Your task to perform on an android device: turn on location history Image 0: 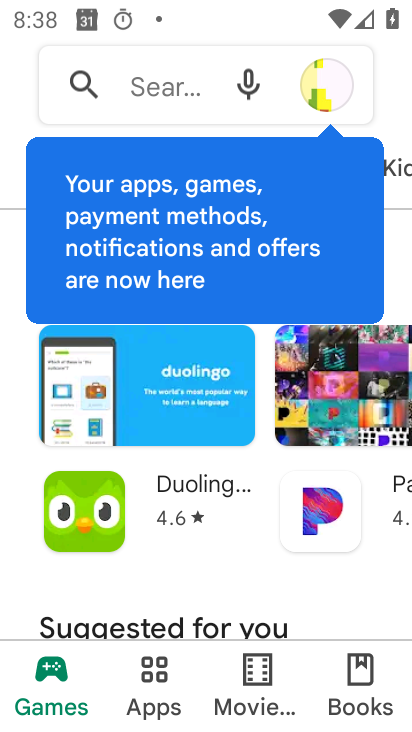
Step 0: press home button
Your task to perform on an android device: turn on location history Image 1: 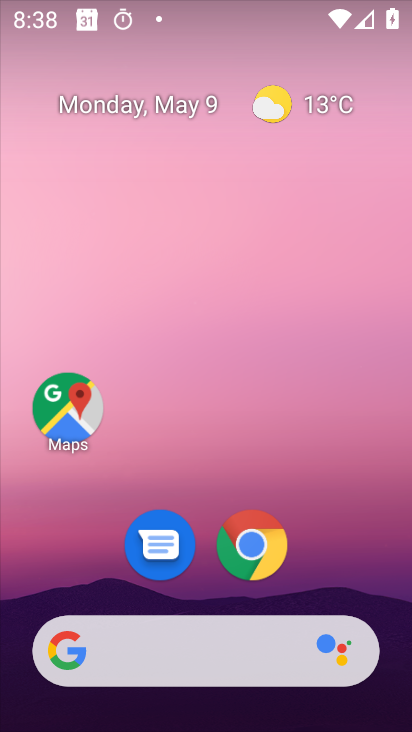
Step 1: drag from (363, 554) to (411, 121)
Your task to perform on an android device: turn on location history Image 2: 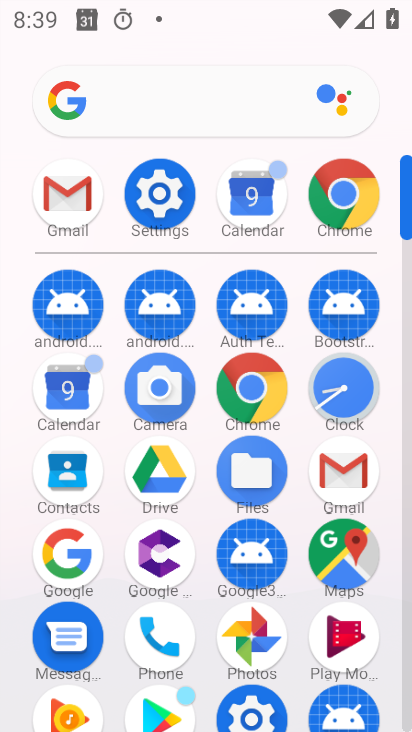
Step 2: click (135, 213)
Your task to perform on an android device: turn on location history Image 3: 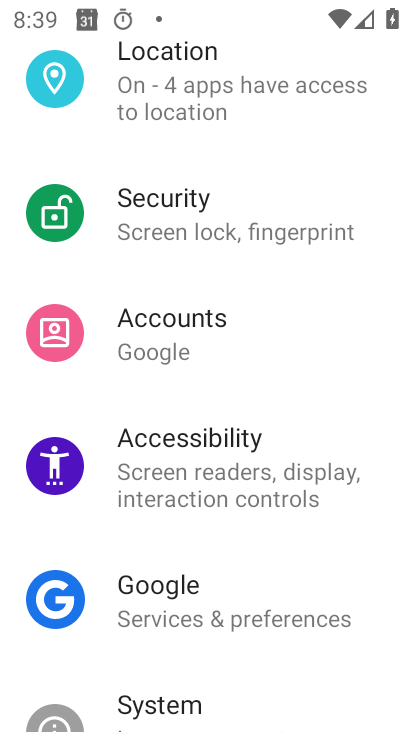
Step 3: drag from (257, 330) to (232, 678)
Your task to perform on an android device: turn on location history Image 4: 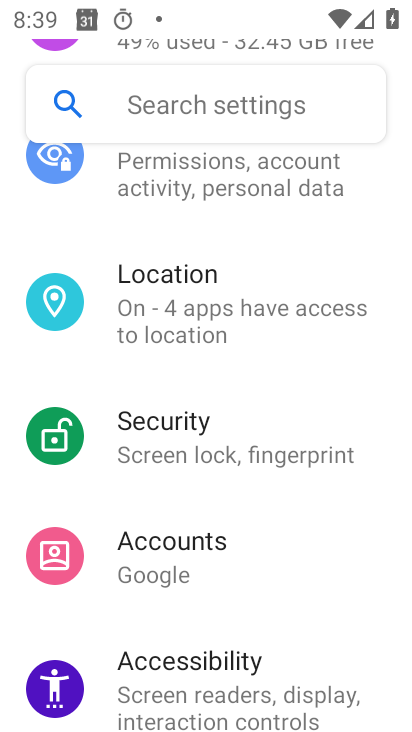
Step 4: click (139, 331)
Your task to perform on an android device: turn on location history Image 5: 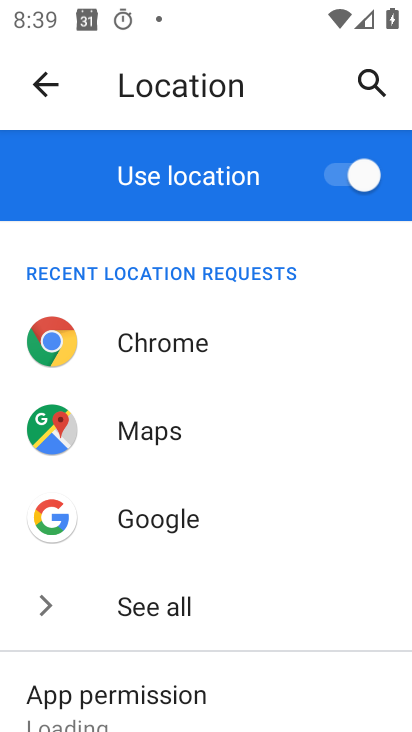
Step 5: drag from (261, 590) to (326, 212)
Your task to perform on an android device: turn on location history Image 6: 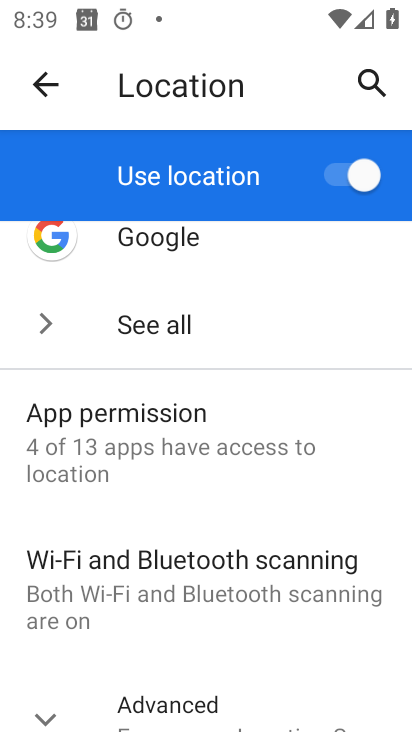
Step 6: drag from (246, 555) to (262, 244)
Your task to perform on an android device: turn on location history Image 7: 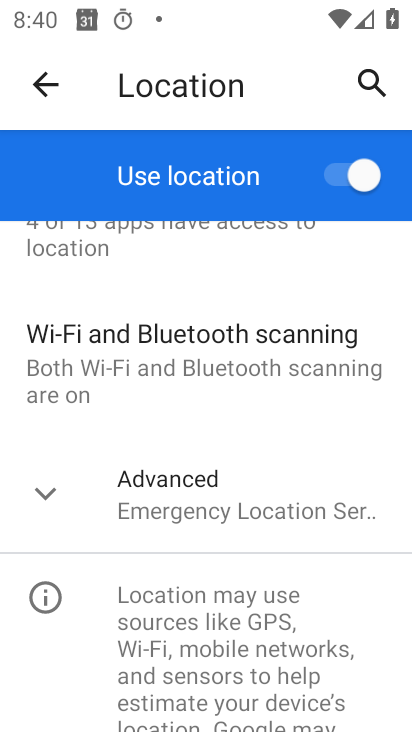
Step 7: drag from (258, 600) to (262, 275)
Your task to perform on an android device: turn on location history Image 8: 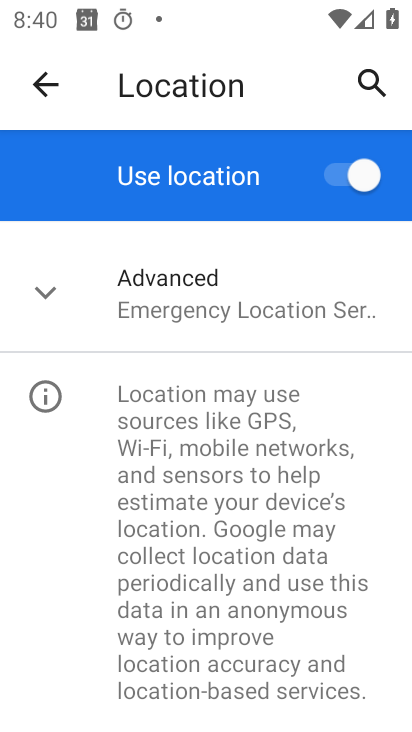
Step 8: click (168, 300)
Your task to perform on an android device: turn on location history Image 9: 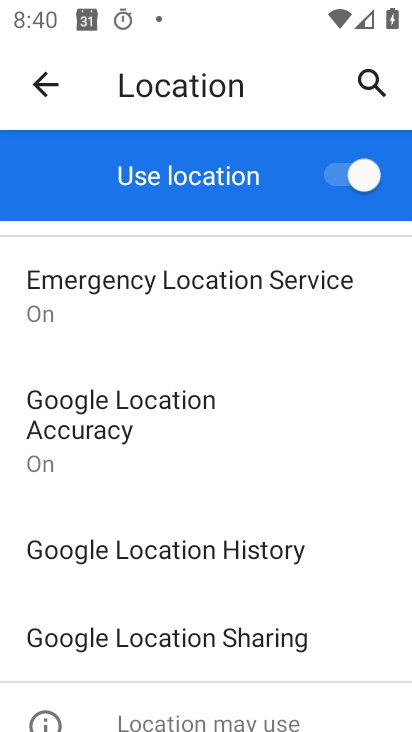
Step 9: drag from (240, 536) to (238, 287)
Your task to perform on an android device: turn on location history Image 10: 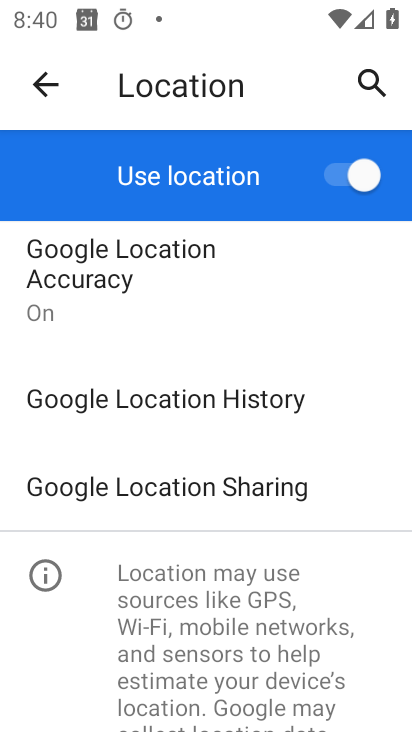
Step 10: click (182, 421)
Your task to perform on an android device: turn on location history Image 11: 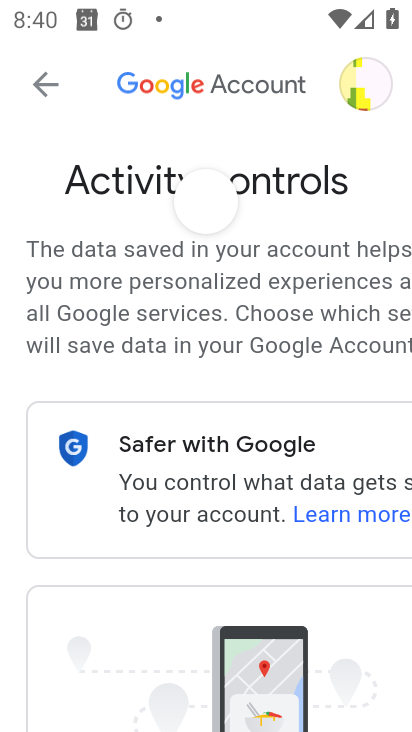
Step 11: task complete